Your task to perform on an android device: open app "NewsBreak: Local News & Alerts" Image 0: 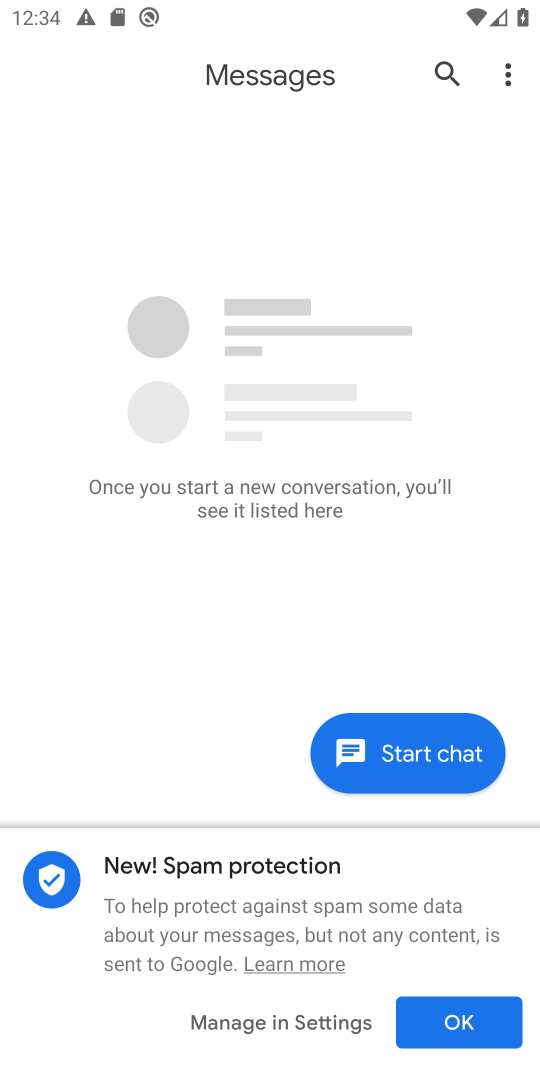
Step 0: press home button
Your task to perform on an android device: open app "NewsBreak: Local News & Alerts" Image 1: 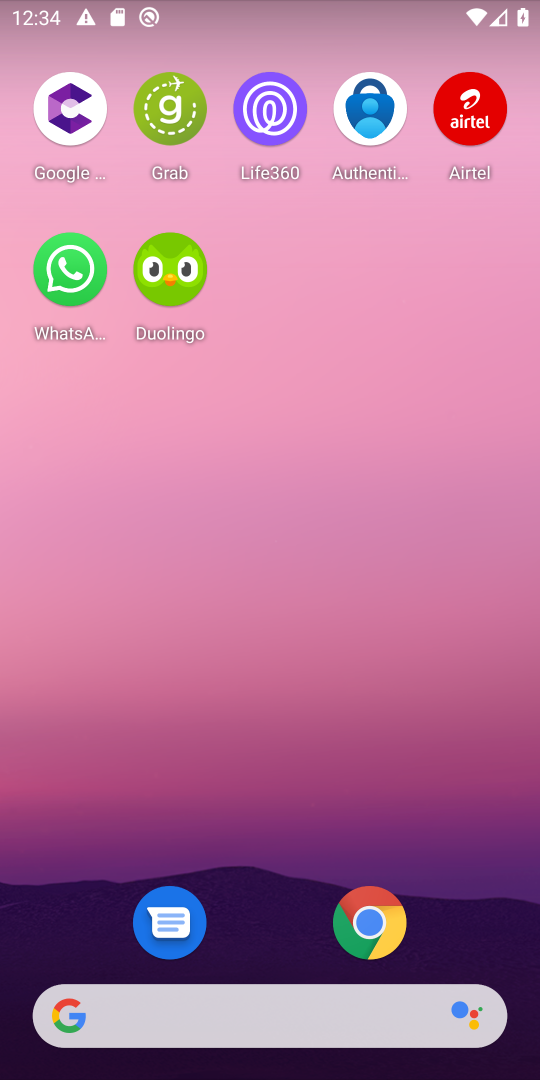
Step 1: drag from (274, 934) to (532, 87)
Your task to perform on an android device: open app "NewsBreak: Local News & Alerts" Image 2: 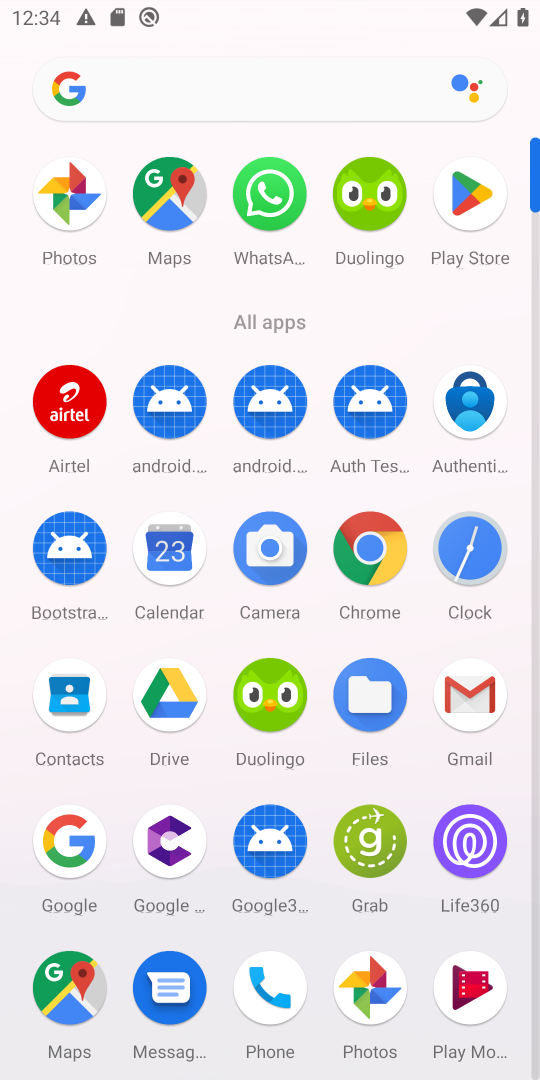
Step 2: click (465, 216)
Your task to perform on an android device: open app "NewsBreak: Local News & Alerts" Image 3: 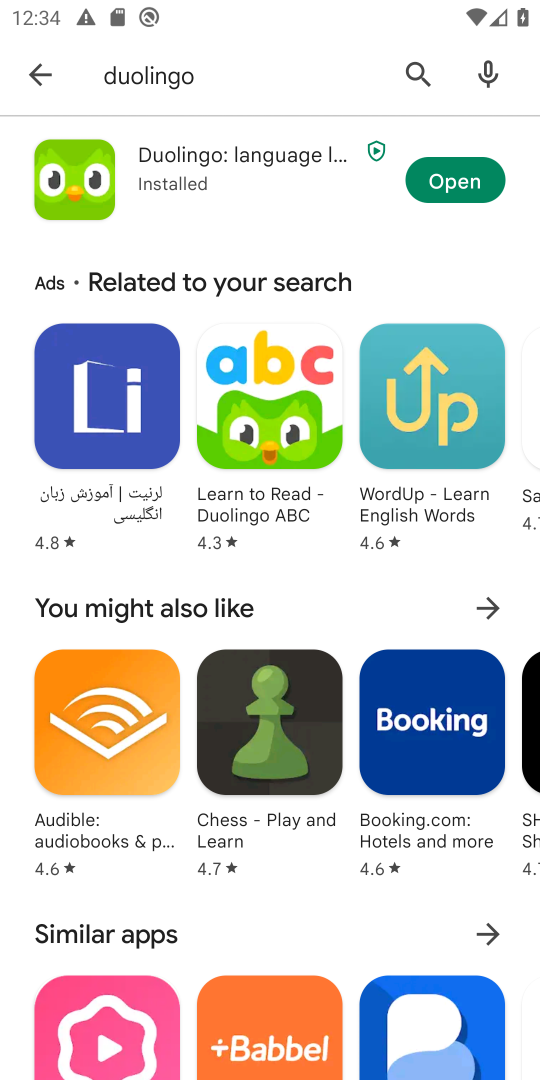
Step 3: click (197, 88)
Your task to perform on an android device: open app "NewsBreak: Local News & Alerts" Image 4: 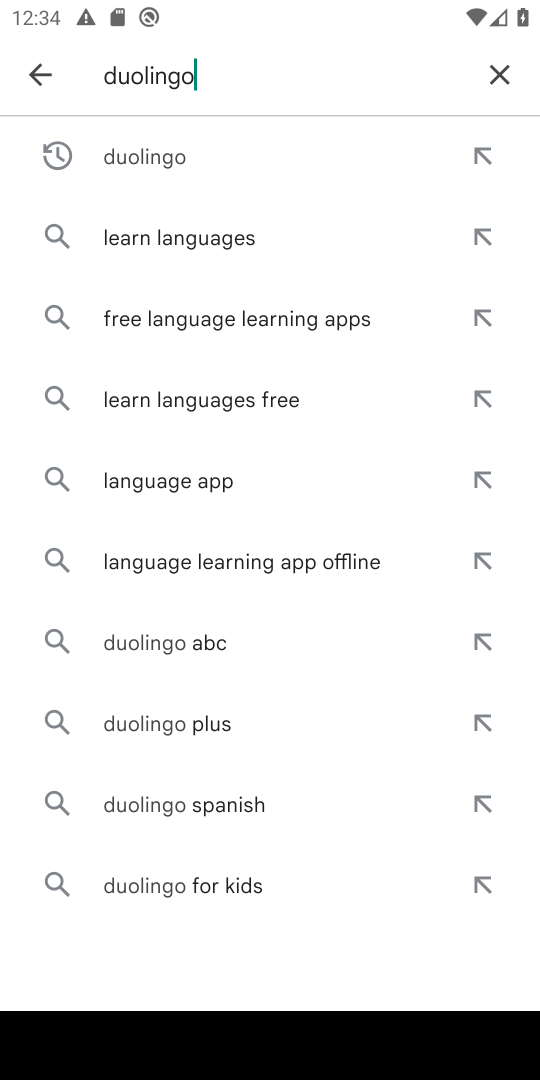
Step 4: click (496, 66)
Your task to perform on an android device: open app "NewsBreak: Local News & Alerts" Image 5: 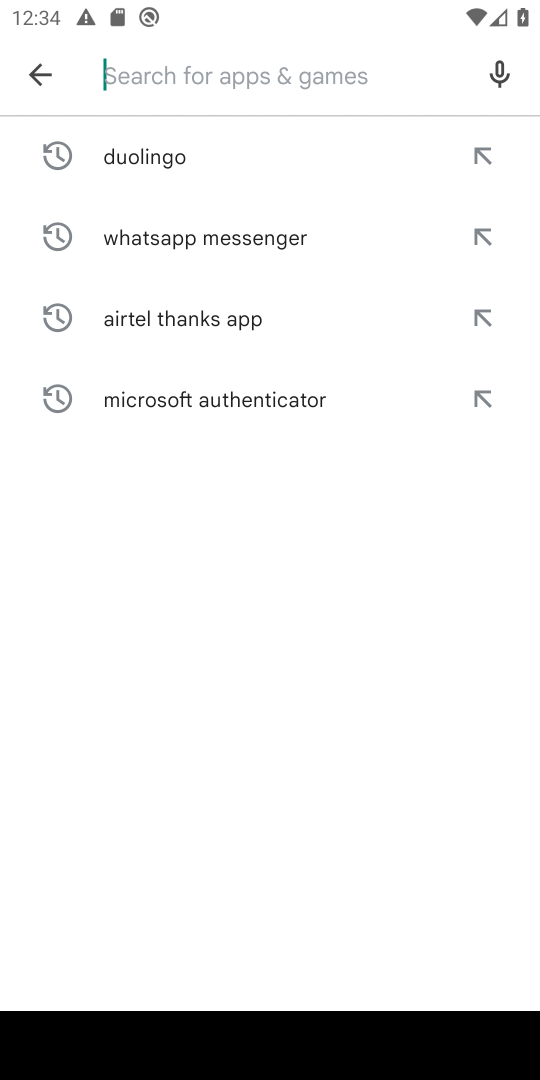
Step 5: type "NewsBreak"
Your task to perform on an android device: open app "NewsBreak: Local News & Alerts" Image 6: 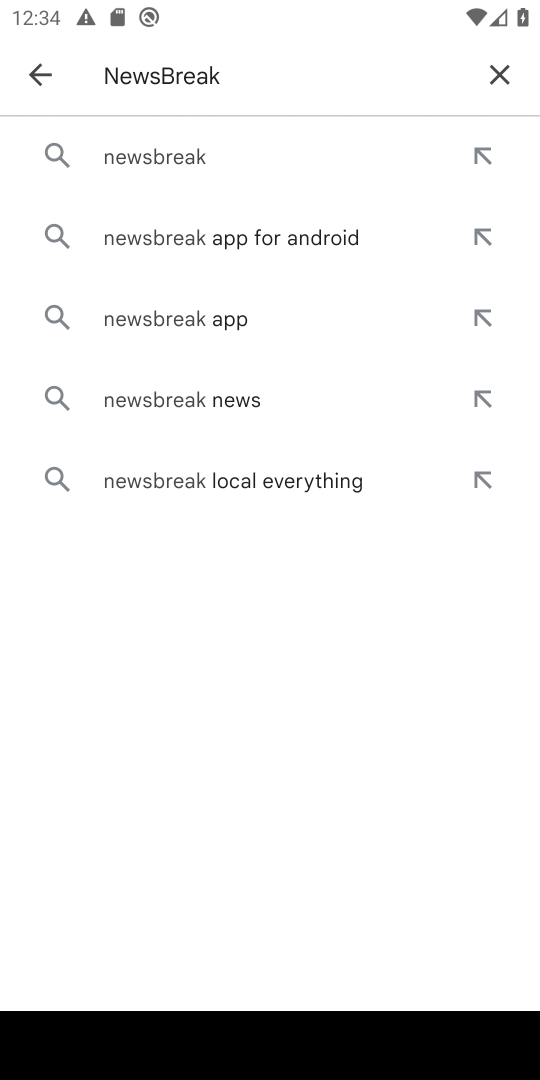
Step 6: click (216, 160)
Your task to perform on an android device: open app "NewsBreak: Local News & Alerts" Image 7: 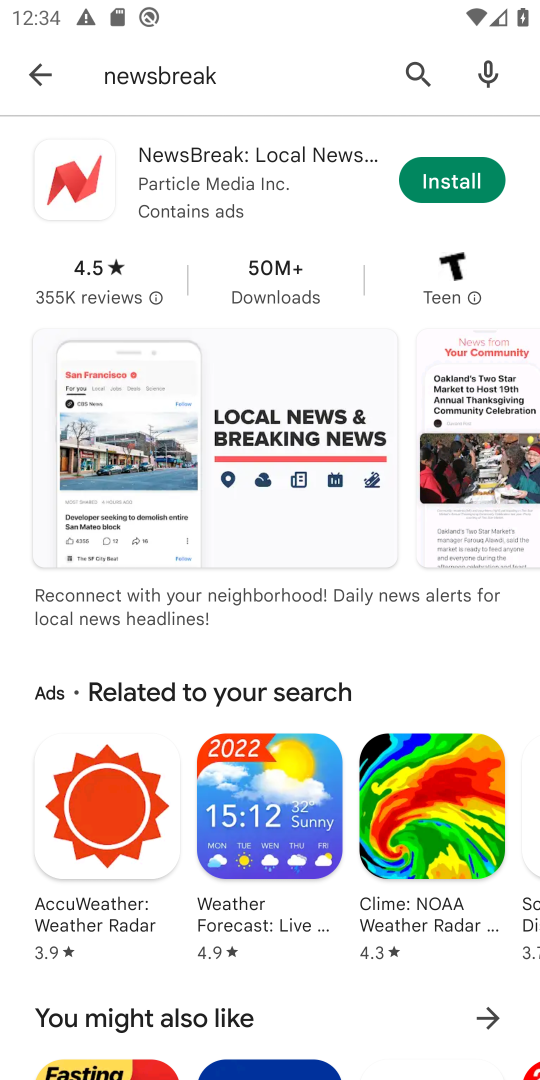
Step 7: click (436, 171)
Your task to perform on an android device: open app "NewsBreak: Local News & Alerts" Image 8: 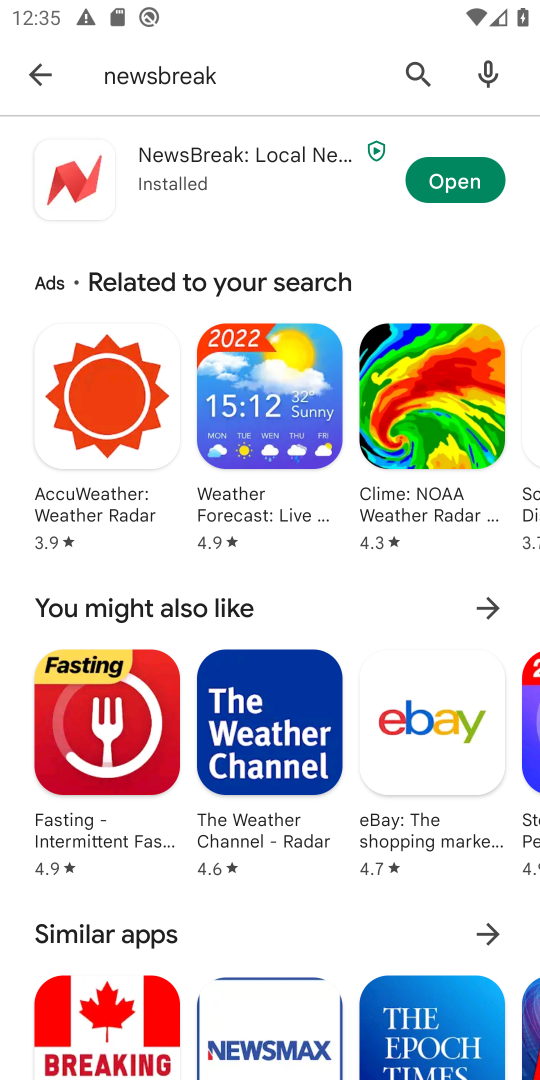
Step 8: click (436, 173)
Your task to perform on an android device: open app "NewsBreak: Local News & Alerts" Image 9: 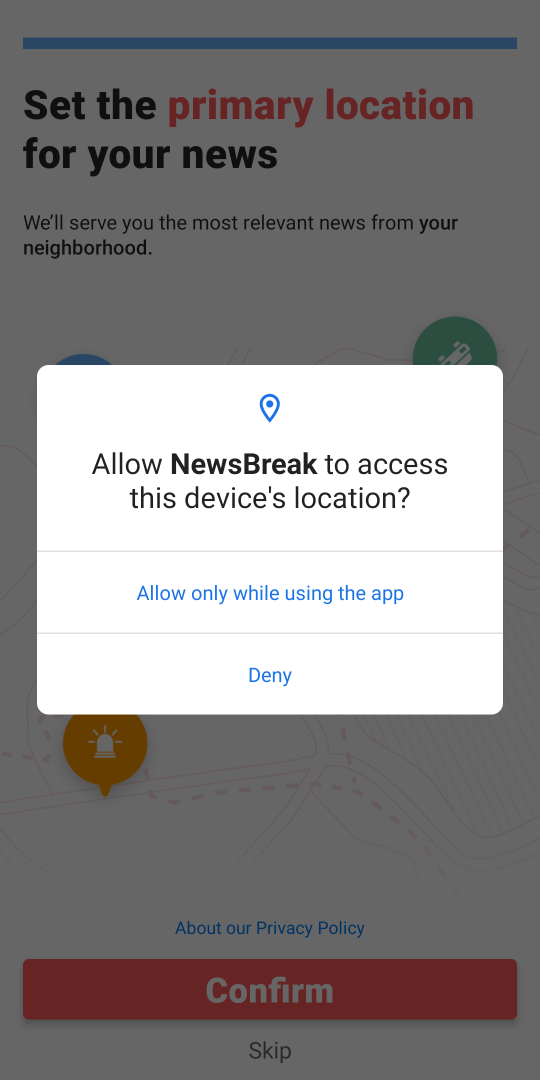
Step 9: click (366, 585)
Your task to perform on an android device: open app "NewsBreak: Local News & Alerts" Image 10: 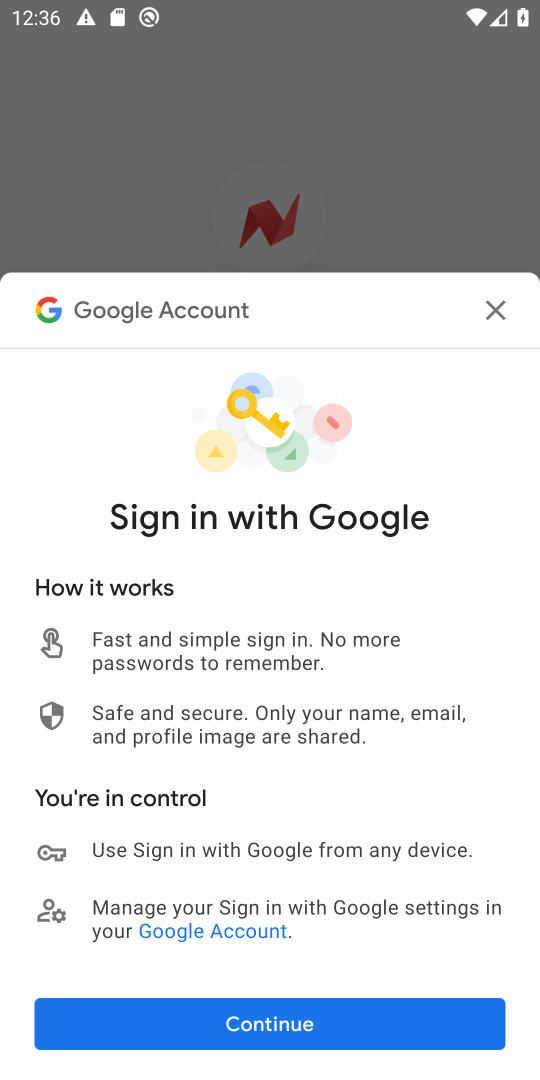
Step 10: click (321, 1014)
Your task to perform on an android device: open app "NewsBreak: Local News & Alerts" Image 11: 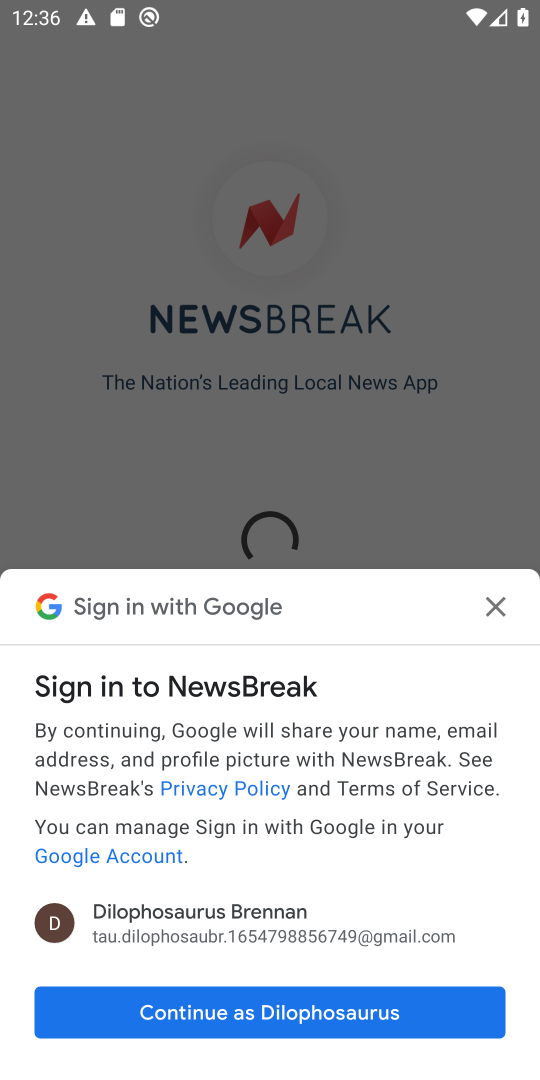
Step 11: click (267, 1016)
Your task to perform on an android device: open app "NewsBreak: Local News & Alerts" Image 12: 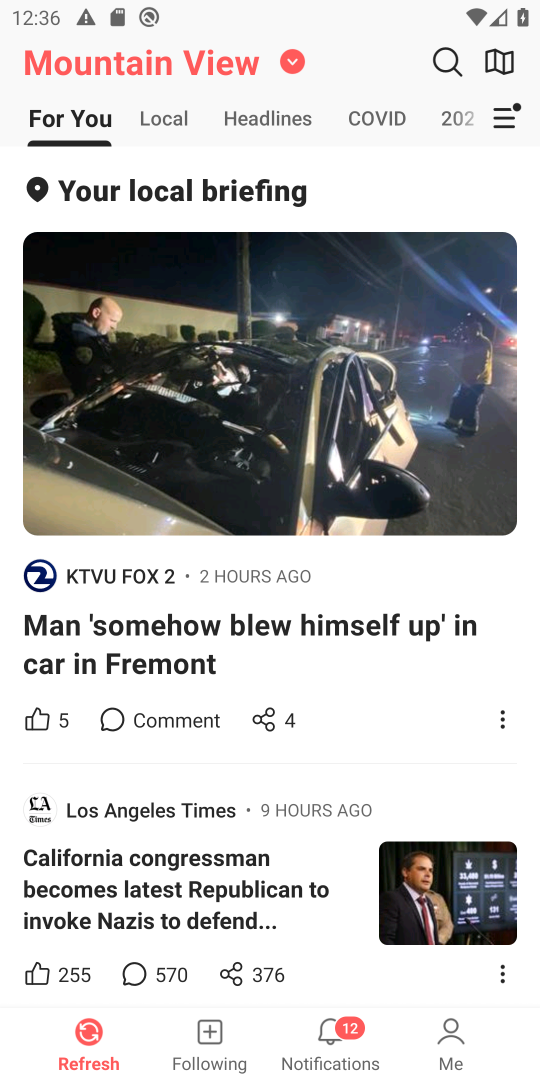
Step 12: task complete